Your task to perform on an android device: Go to CNN.com Image 0: 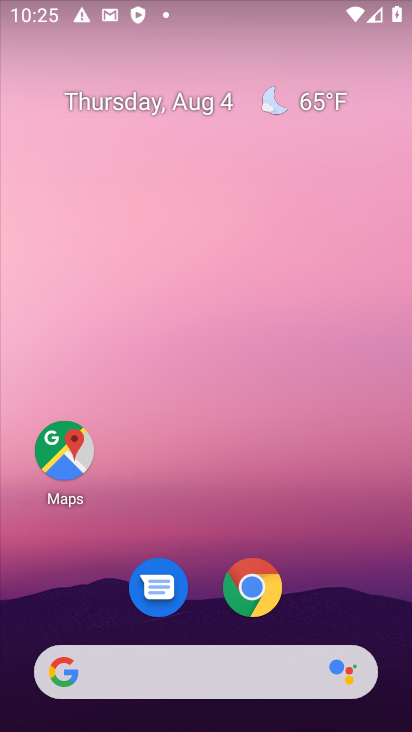
Step 0: drag from (192, 595) to (252, 311)
Your task to perform on an android device: Go to CNN.com Image 1: 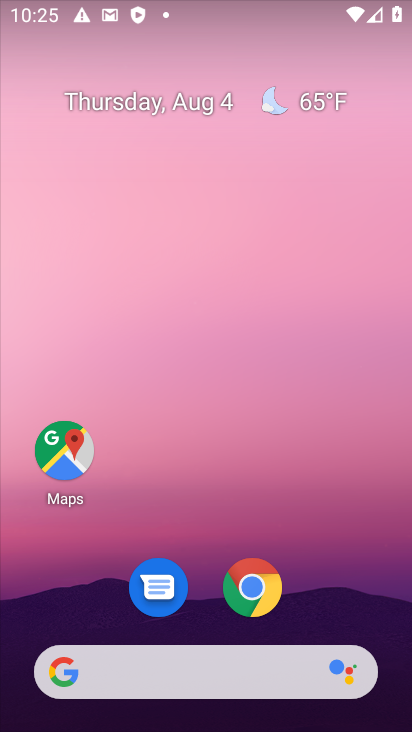
Step 1: drag from (135, 654) to (200, 350)
Your task to perform on an android device: Go to CNN.com Image 2: 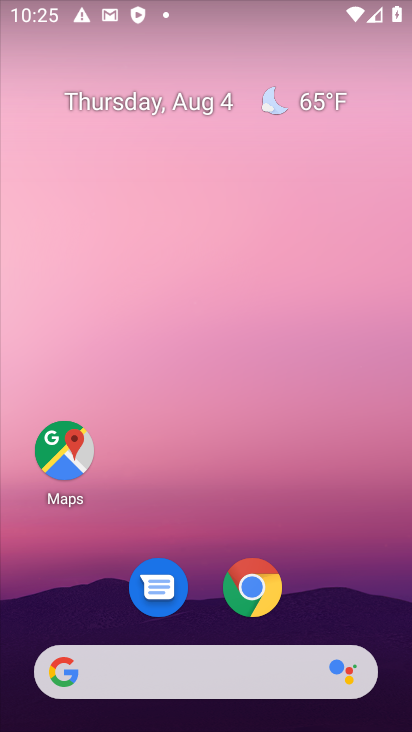
Step 2: drag from (203, 614) to (237, 308)
Your task to perform on an android device: Go to CNN.com Image 3: 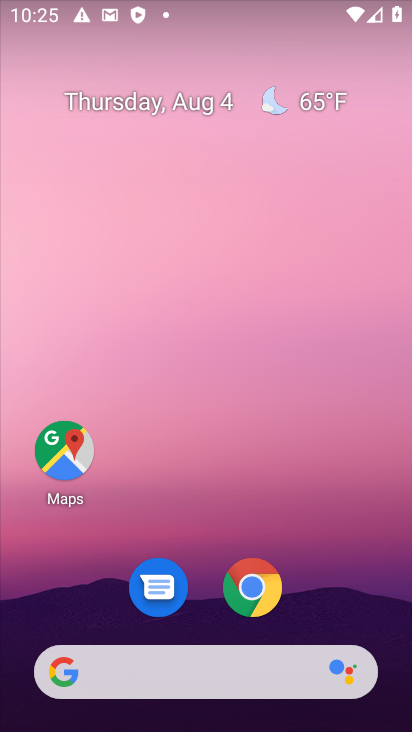
Step 3: drag from (251, 628) to (235, 171)
Your task to perform on an android device: Go to CNN.com Image 4: 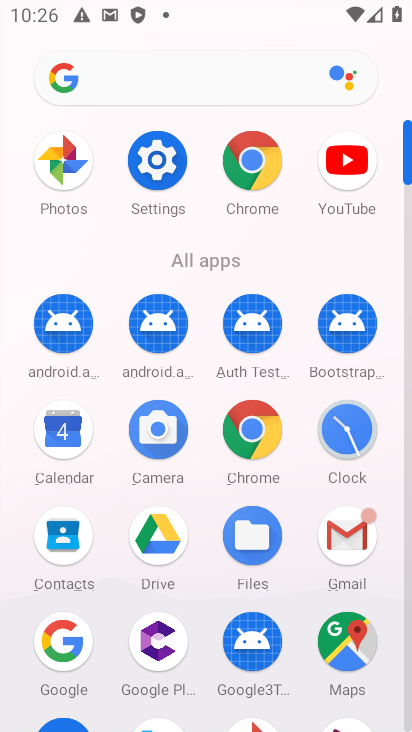
Step 4: click (264, 155)
Your task to perform on an android device: Go to CNN.com Image 5: 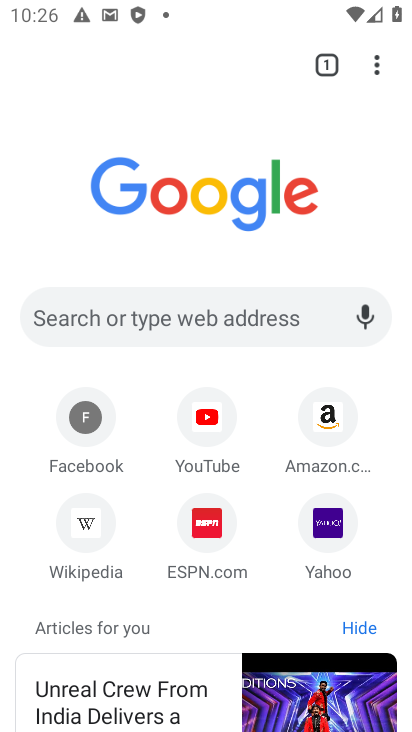
Step 5: click (206, 313)
Your task to perform on an android device: Go to CNN.com Image 6: 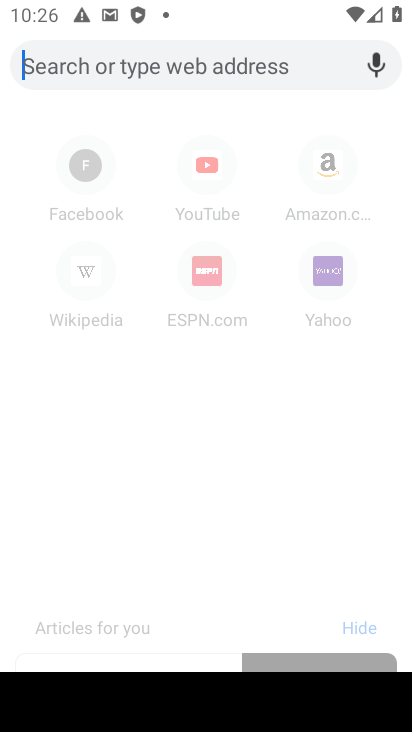
Step 6: type " CNN.com "
Your task to perform on an android device: Go to CNN.com Image 7: 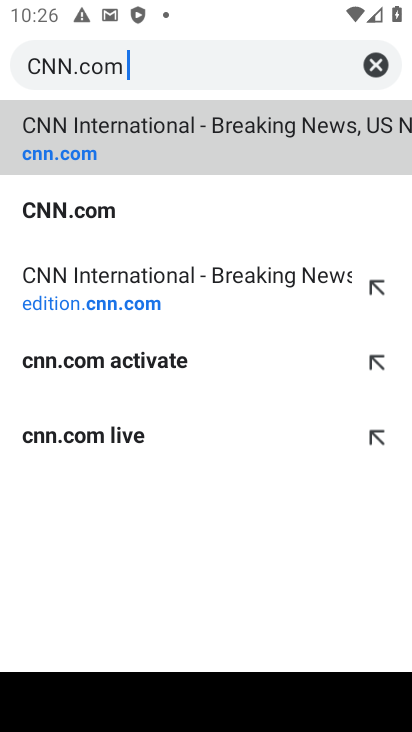
Step 7: click (276, 157)
Your task to perform on an android device: Go to CNN.com Image 8: 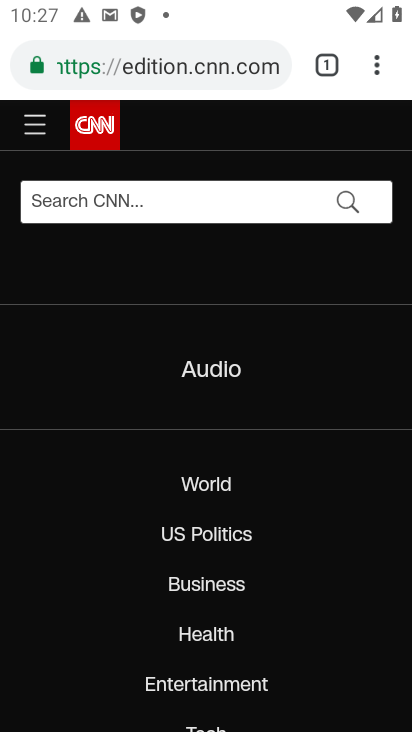
Step 8: task complete